Your task to perform on an android device: open a new tab in the chrome app Image 0: 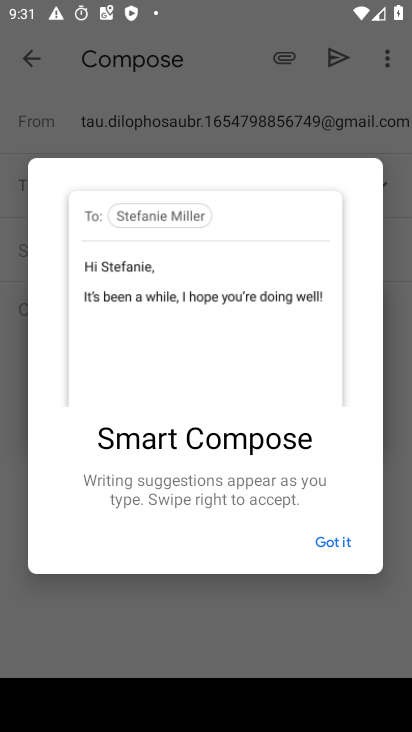
Step 0: click (338, 540)
Your task to perform on an android device: open a new tab in the chrome app Image 1: 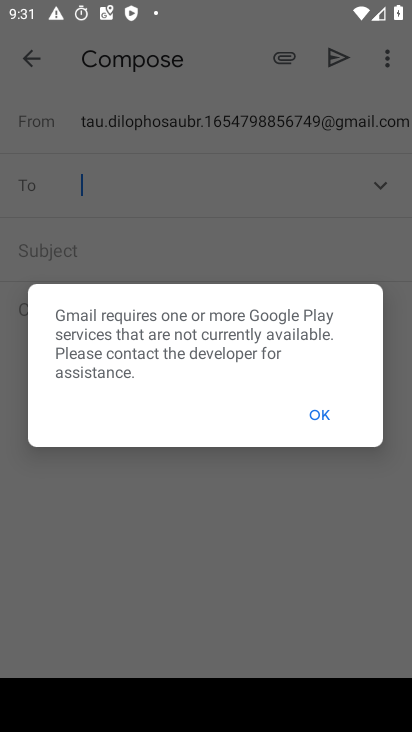
Step 1: press home button
Your task to perform on an android device: open a new tab in the chrome app Image 2: 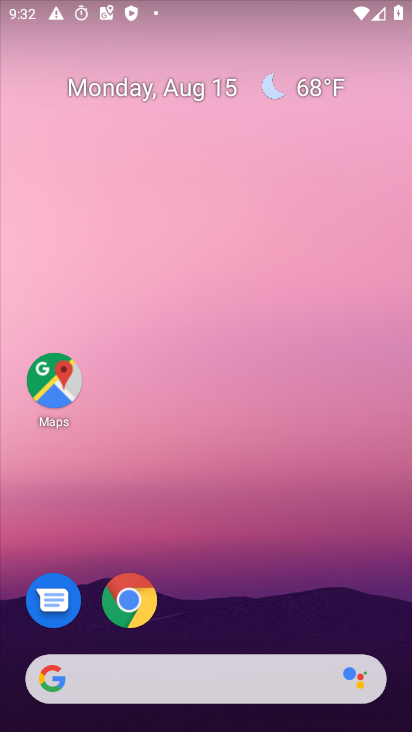
Step 2: click (117, 593)
Your task to perform on an android device: open a new tab in the chrome app Image 3: 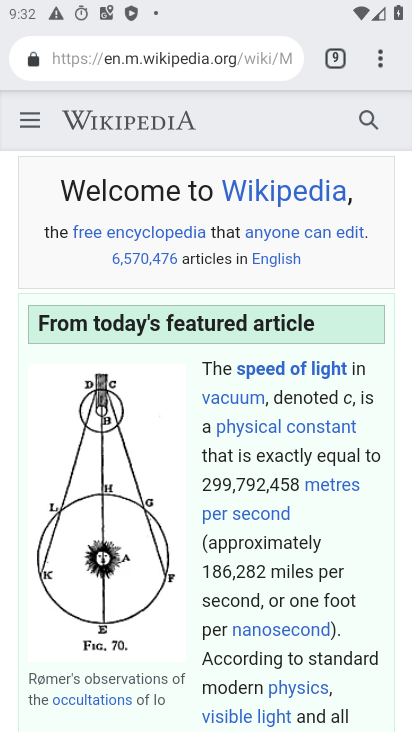
Step 3: click (381, 62)
Your task to perform on an android device: open a new tab in the chrome app Image 4: 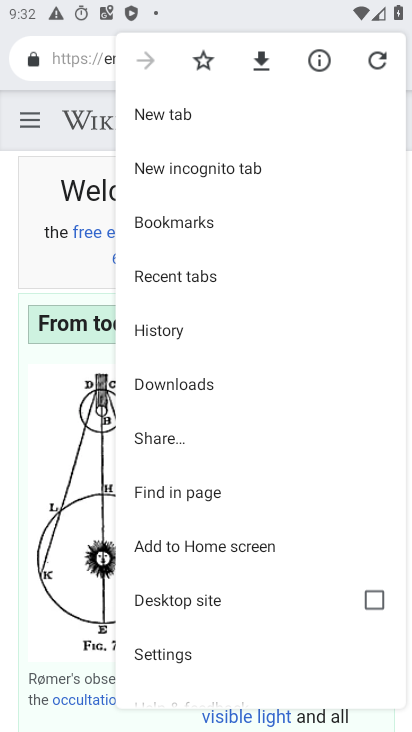
Step 4: click (179, 109)
Your task to perform on an android device: open a new tab in the chrome app Image 5: 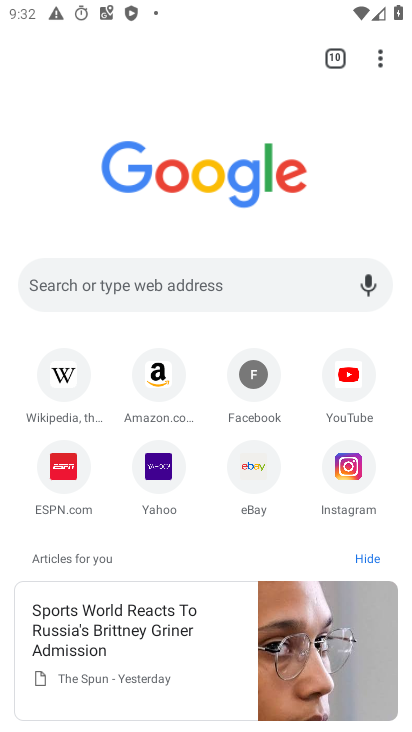
Step 5: task complete